Your task to perform on an android device: Open calendar and show me the first week of next month Image 0: 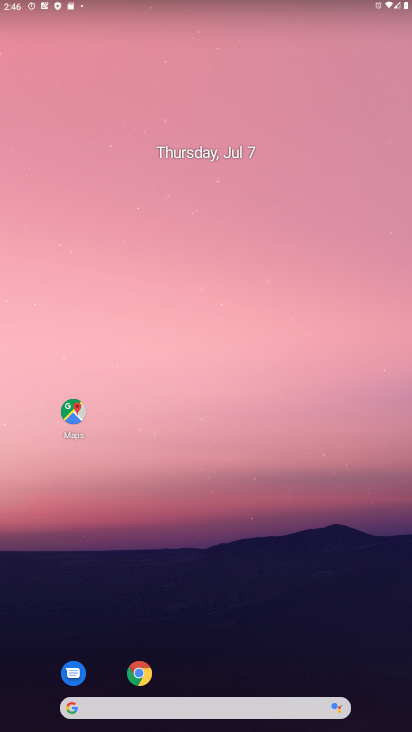
Step 0: drag from (184, 692) to (114, 173)
Your task to perform on an android device: Open calendar and show me the first week of next month Image 1: 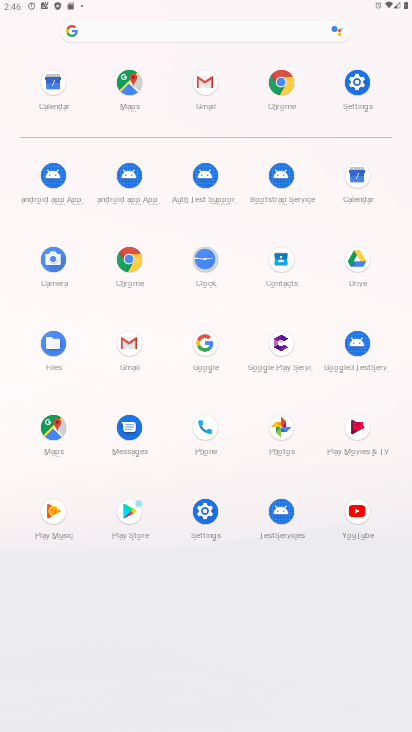
Step 1: click (354, 184)
Your task to perform on an android device: Open calendar and show me the first week of next month Image 2: 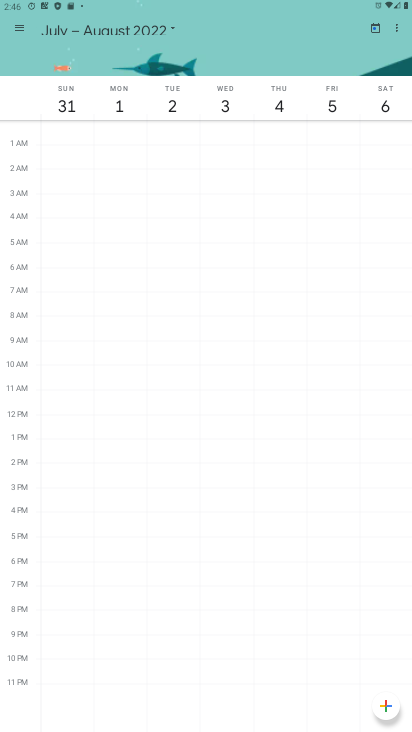
Step 2: task complete